Your task to perform on an android device: change notification settings in the gmail app Image 0: 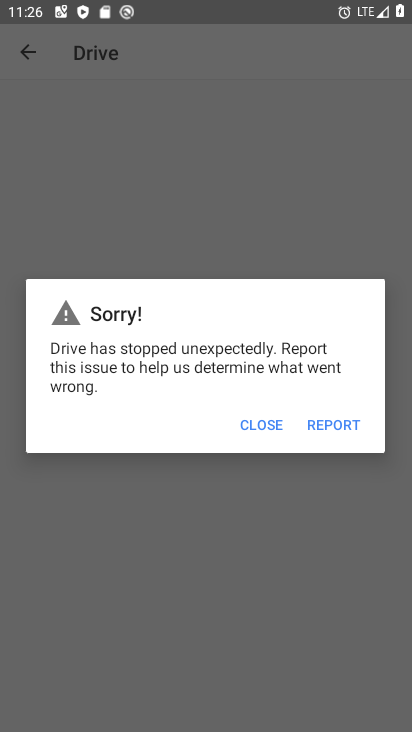
Step 0: press home button
Your task to perform on an android device: change notification settings in the gmail app Image 1: 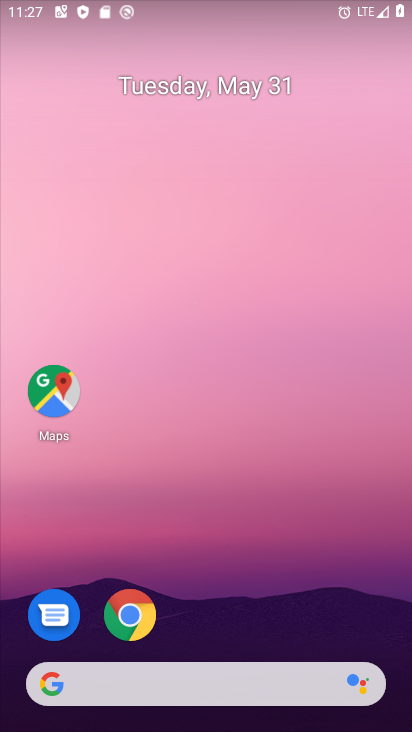
Step 1: drag from (307, 512) to (303, 0)
Your task to perform on an android device: change notification settings in the gmail app Image 2: 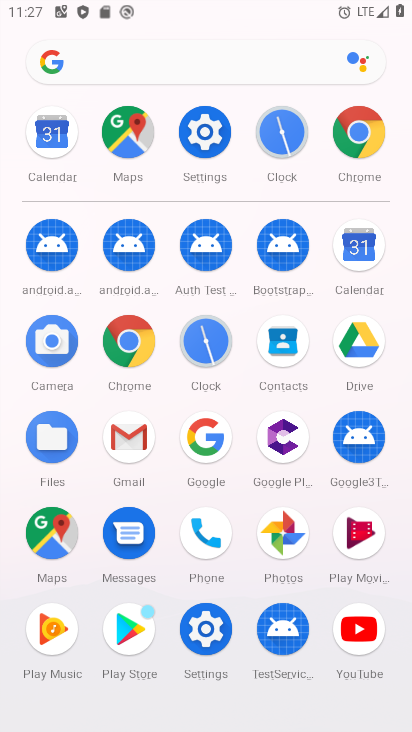
Step 2: click (140, 449)
Your task to perform on an android device: change notification settings in the gmail app Image 3: 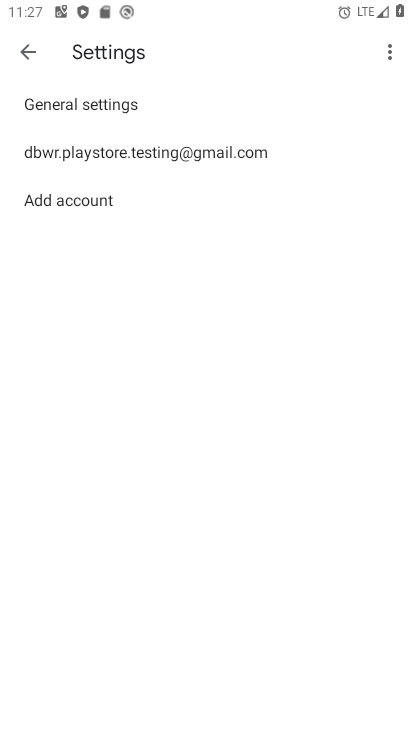
Step 3: click (27, 58)
Your task to perform on an android device: change notification settings in the gmail app Image 4: 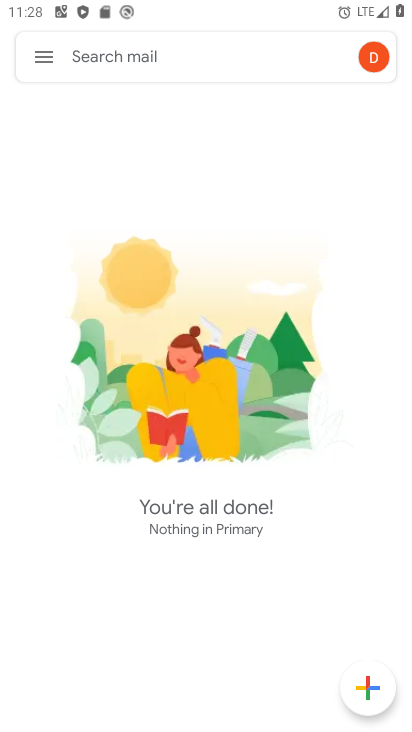
Step 4: click (49, 62)
Your task to perform on an android device: change notification settings in the gmail app Image 5: 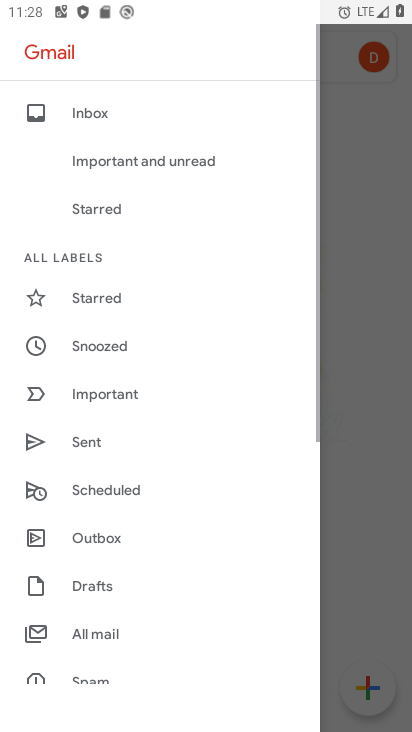
Step 5: drag from (187, 604) to (163, 309)
Your task to perform on an android device: change notification settings in the gmail app Image 6: 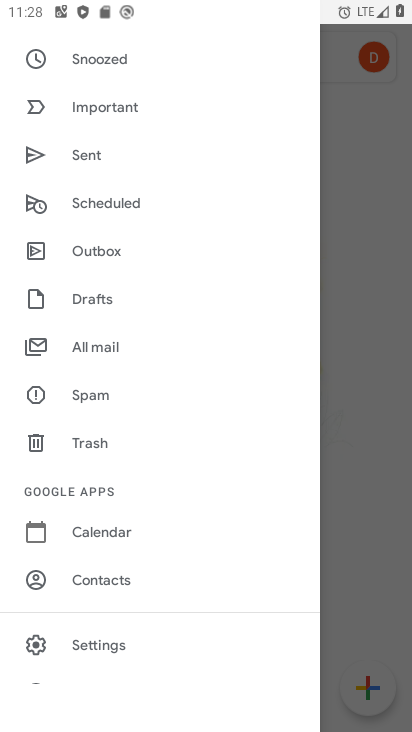
Step 6: click (105, 639)
Your task to perform on an android device: change notification settings in the gmail app Image 7: 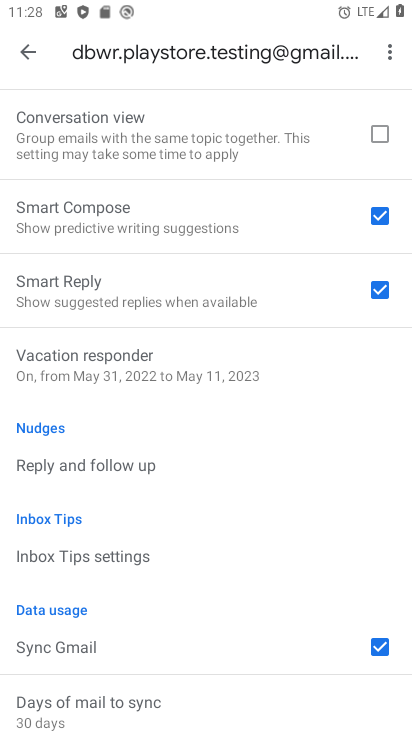
Step 7: drag from (135, 203) to (159, 518)
Your task to perform on an android device: change notification settings in the gmail app Image 8: 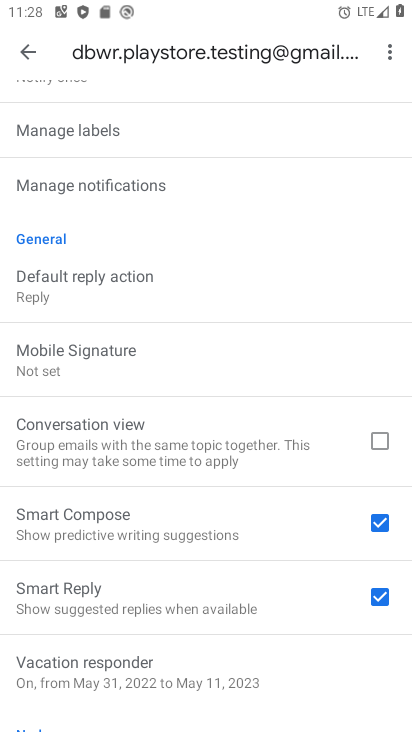
Step 8: drag from (167, 205) to (198, 557)
Your task to perform on an android device: change notification settings in the gmail app Image 9: 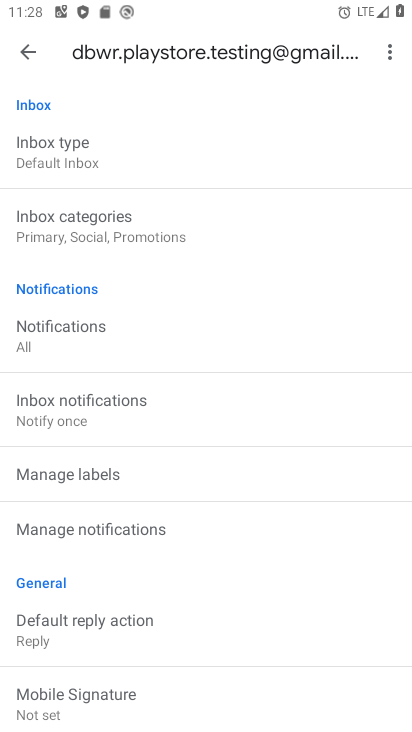
Step 9: drag from (129, 193) to (181, 535)
Your task to perform on an android device: change notification settings in the gmail app Image 10: 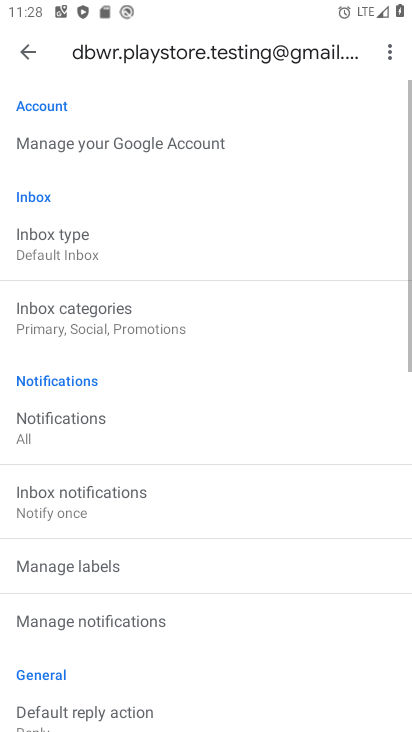
Step 10: click (76, 435)
Your task to perform on an android device: change notification settings in the gmail app Image 11: 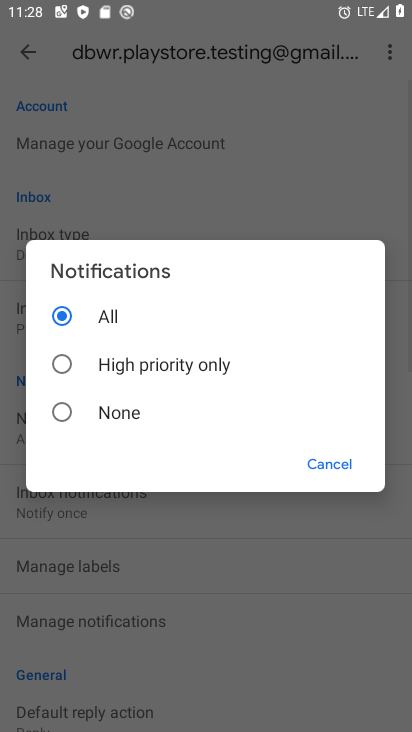
Step 11: click (93, 359)
Your task to perform on an android device: change notification settings in the gmail app Image 12: 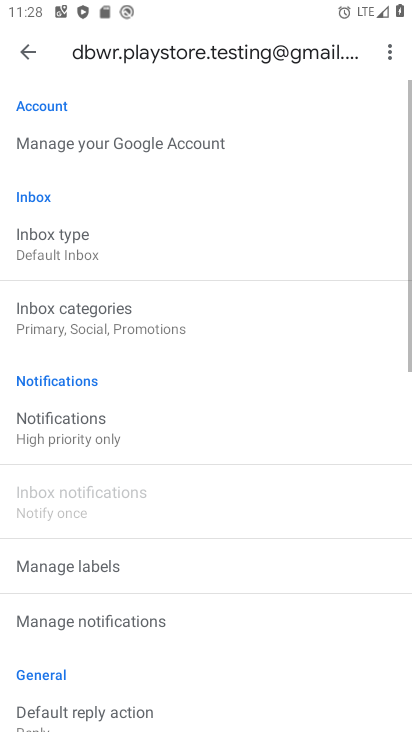
Step 12: task complete